Your task to perform on an android device: Go to Reddit.com Image 0: 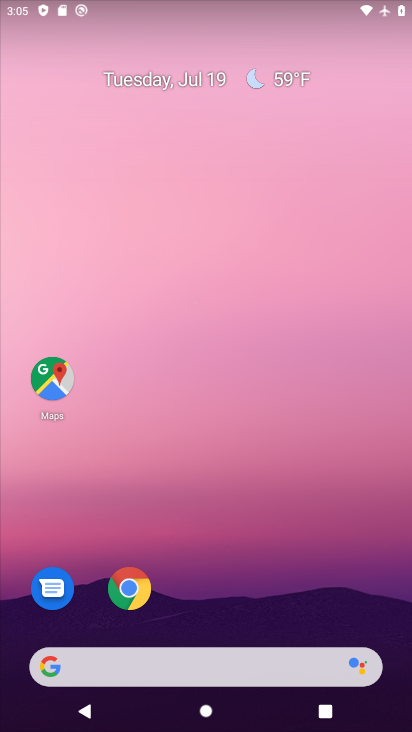
Step 0: click (55, 659)
Your task to perform on an android device: Go to Reddit.com Image 1: 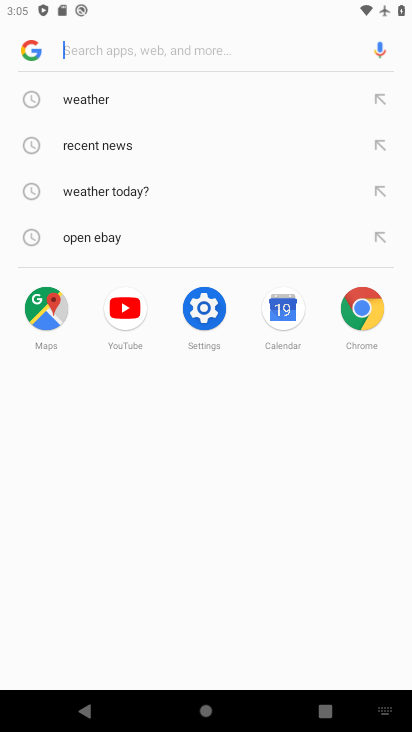
Step 1: type "Reddit.com"
Your task to perform on an android device: Go to Reddit.com Image 2: 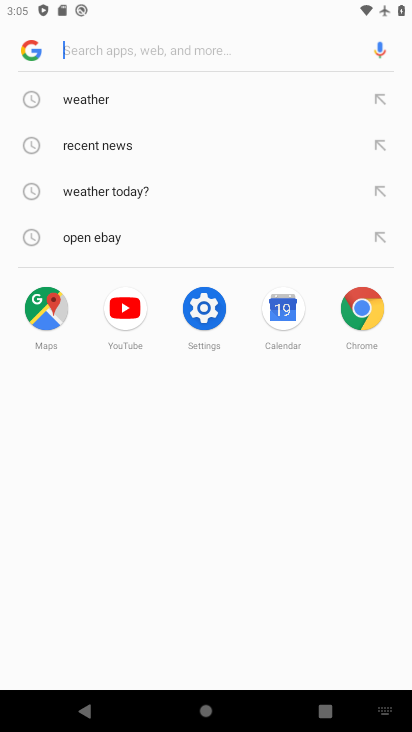
Step 2: click (141, 45)
Your task to perform on an android device: Go to Reddit.com Image 3: 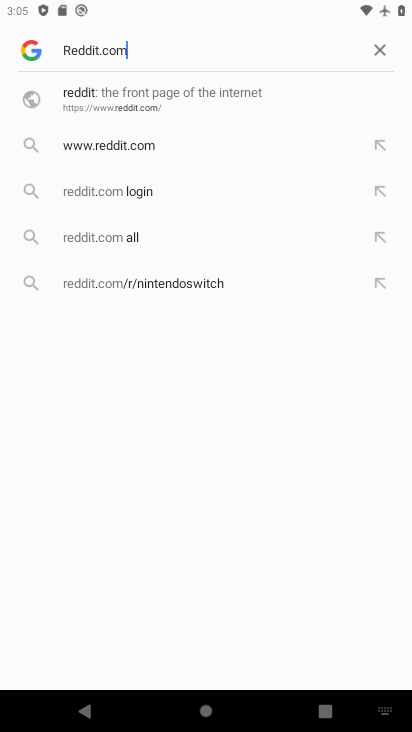
Step 3: press enter
Your task to perform on an android device: Go to Reddit.com Image 4: 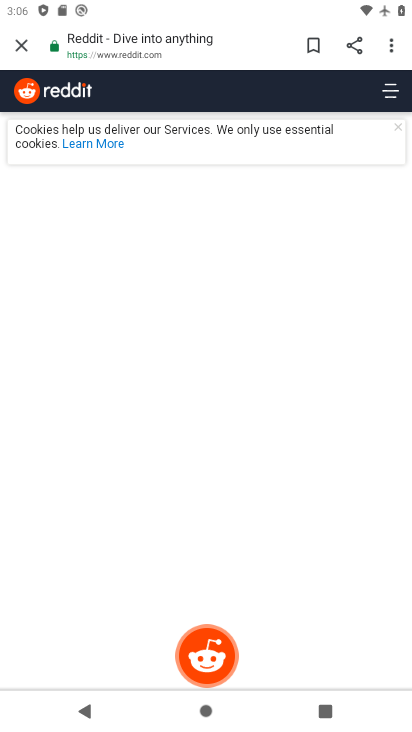
Step 4: task complete